Your task to perform on an android device: set default search engine in the chrome app Image 0: 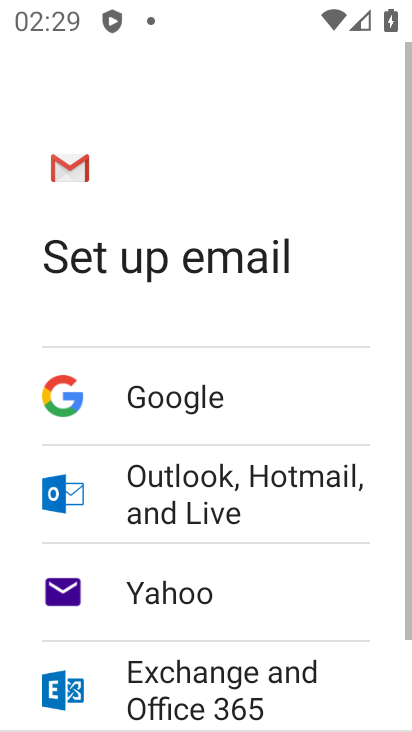
Step 0: press home button
Your task to perform on an android device: set default search engine in the chrome app Image 1: 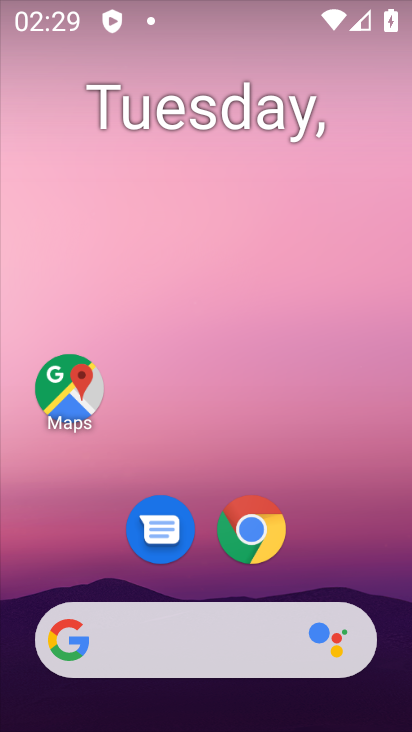
Step 1: click (255, 536)
Your task to perform on an android device: set default search engine in the chrome app Image 2: 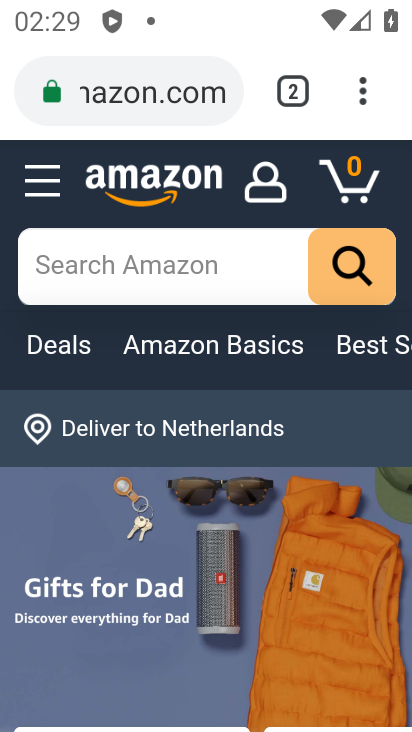
Step 2: click (350, 84)
Your task to perform on an android device: set default search engine in the chrome app Image 3: 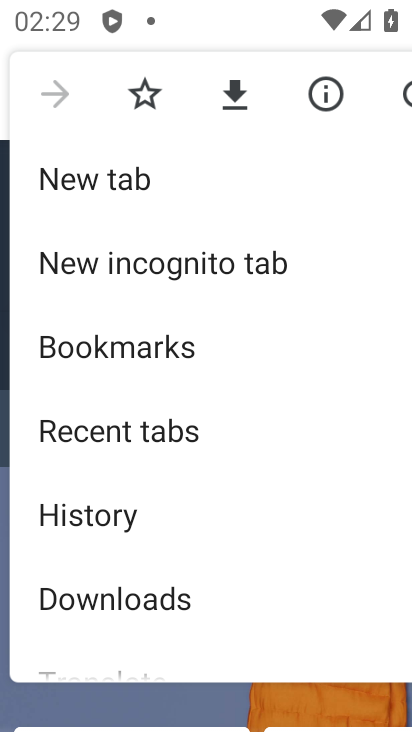
Step 3: drag from (123, 592) to (168, 296)
Your task to perform on an android device: set default search engine in the chrome app Image 4: 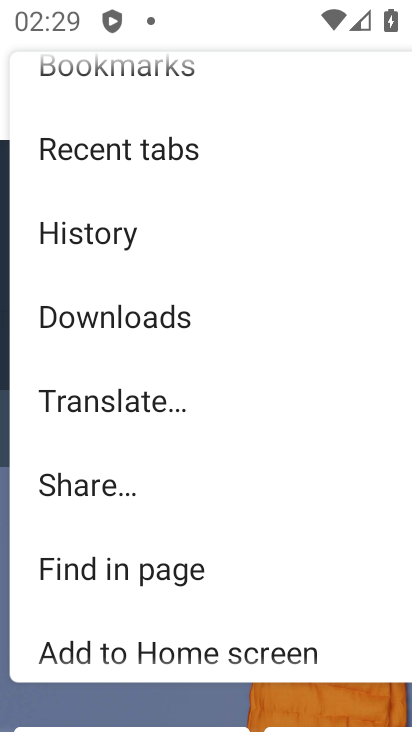
Step 4: drag from (121, 623) to (220, 171)
Your task to perform on an android device: set default search engine in the chrome app Image 5: 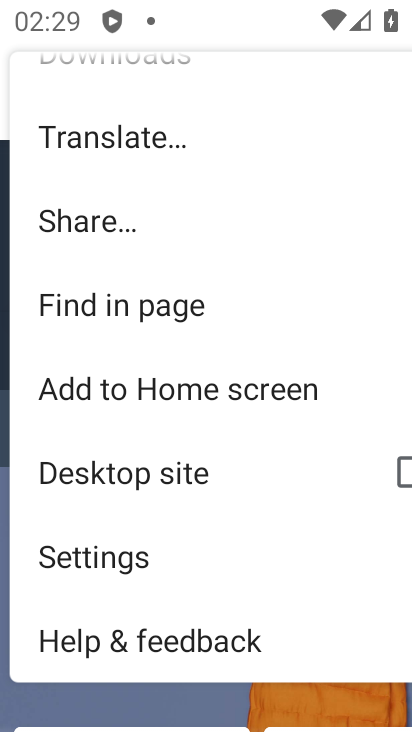
Step 5: click (140, 552)
Your task to perform on an android device: set default search engine in the chrome app Image 6: 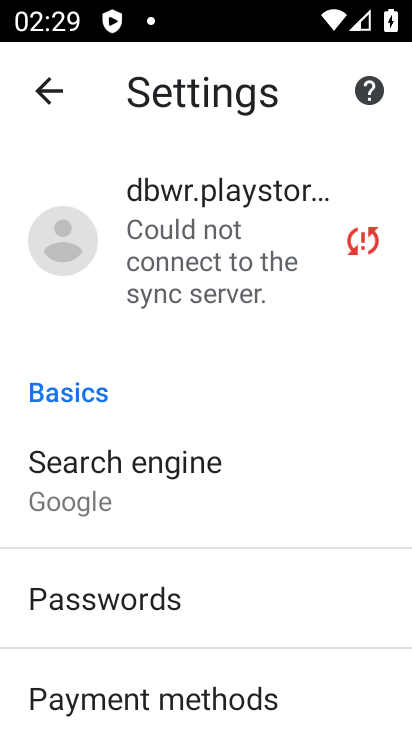
Step 6: click (34, 467)
Your task to perform on an android device: set default search engine in the chrome app Image 7: 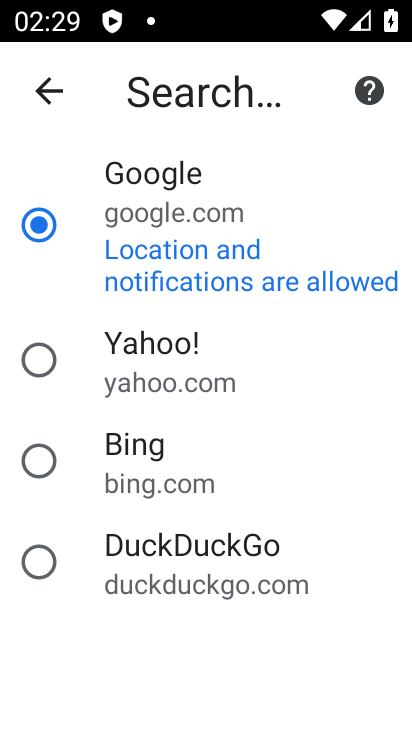
Step 7: click (153, 354)
Your task to perform on an android device: set default search engine in the chrome app Image 8: 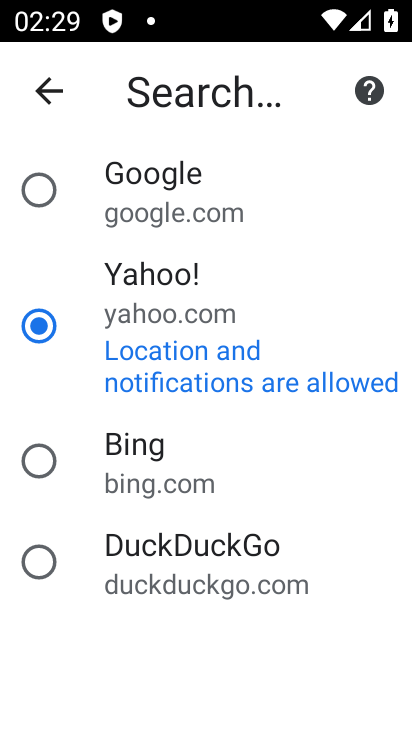
Step 8: task complete